Your task to perform on an android device: change the clock style Image 0: 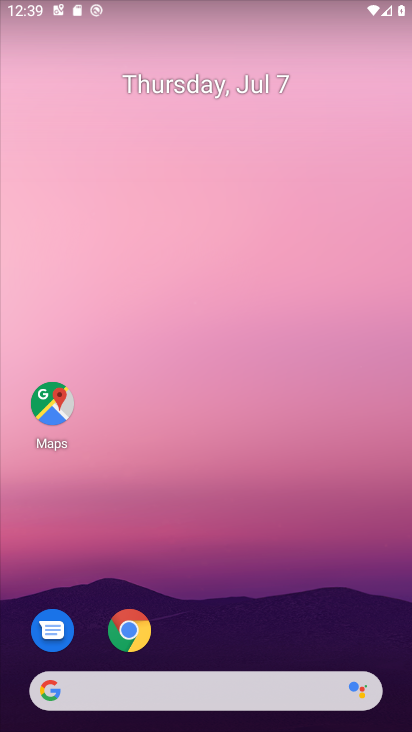
Step 0: drag from (249, 637) to (272, 191)
Your task to perform on an android device: change the clock style Image 1: 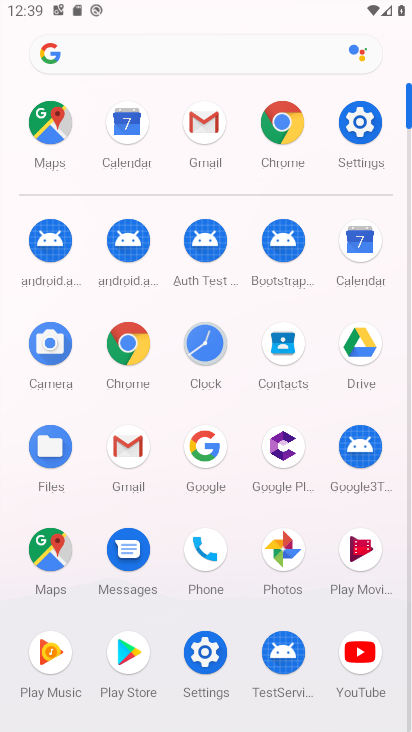
Step 1: click (202, 341)
Your task to perform on an android device: change the clock style Image 2: 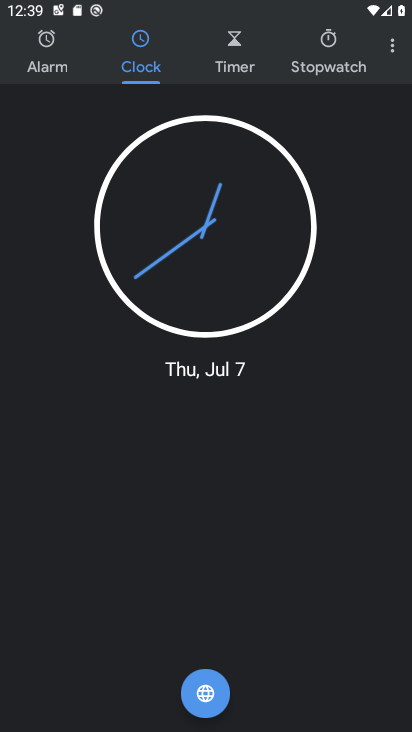
Step 2: click (401, 43)
Your task to perform on an android device: change the clock style Image 3: 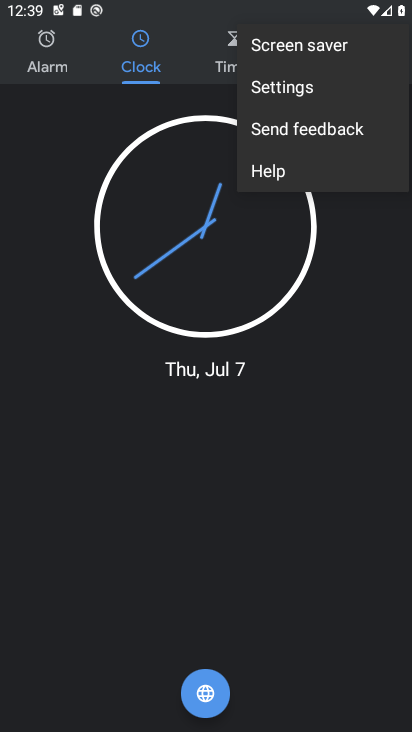
Step 3: click (331, 83)
Your task to perform on an android device: change the clock style Image 4: 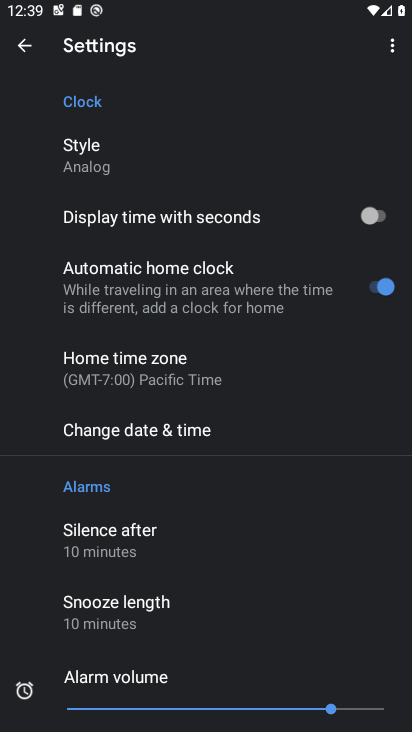
Step 4: click (143, 151)
Your task to perform on an android device: change the clock style Image 5: 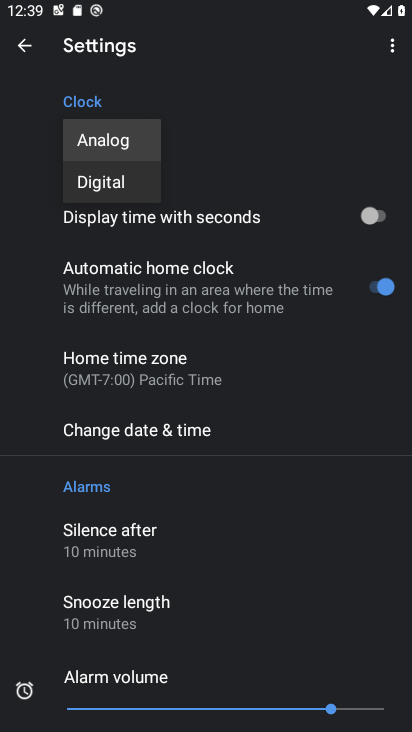
Step 5: click (89, 186)
Your task to perform on an android device: change the clock style Image 6: 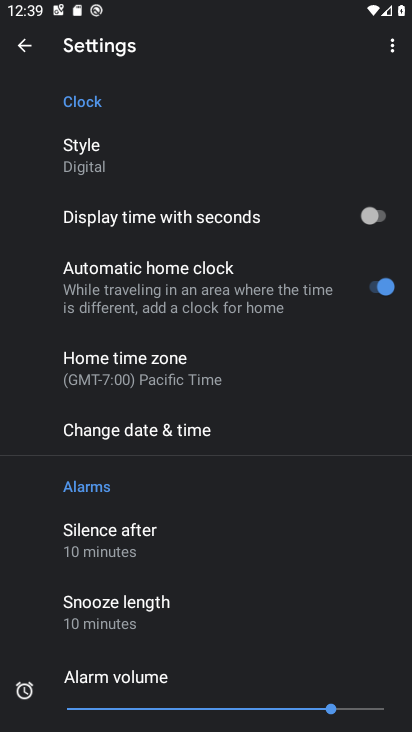
Step 6: task complete